Your task to perform on an android device: turn on translation in the chrome app Image 0: 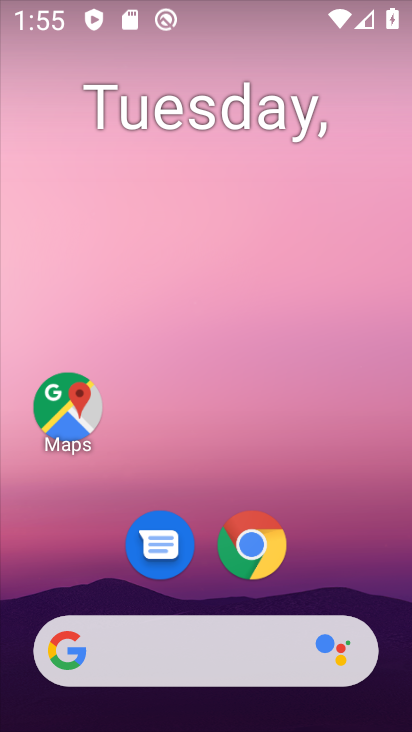
Step 0: drag from (318, 476) to (242, 9)
Your task to perform on an android device: turn on translation in the chrome app Image 1: 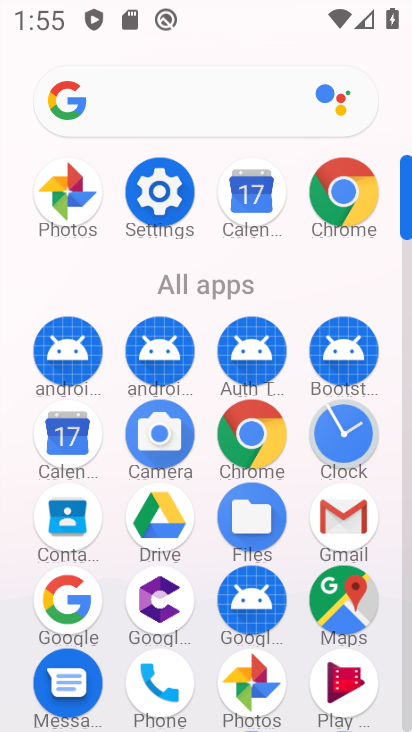
Step 1: drag from (12, 542) to (13, 198)
Your task to perform on an android device: turn on translation in the chrome app Image 2: 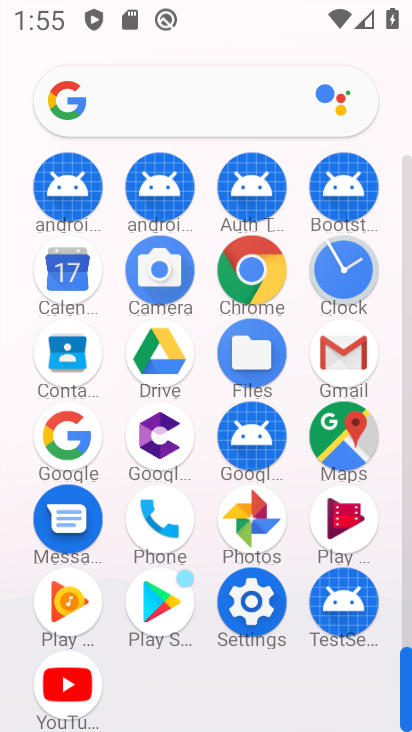
Step 2: click (250, 273)
Your task to perform on an android device: turn on translation in the chrome app Image 3: 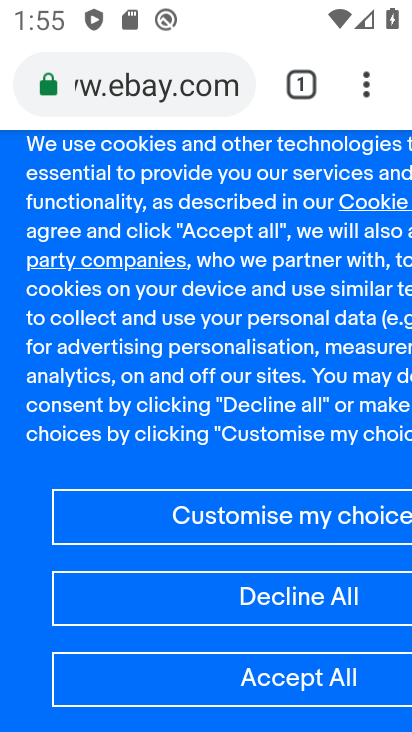
Step 3: drag from (370, 90) to (132, 599)
Your task to perform on an android device: turn on translation in the chrome app Image 4: 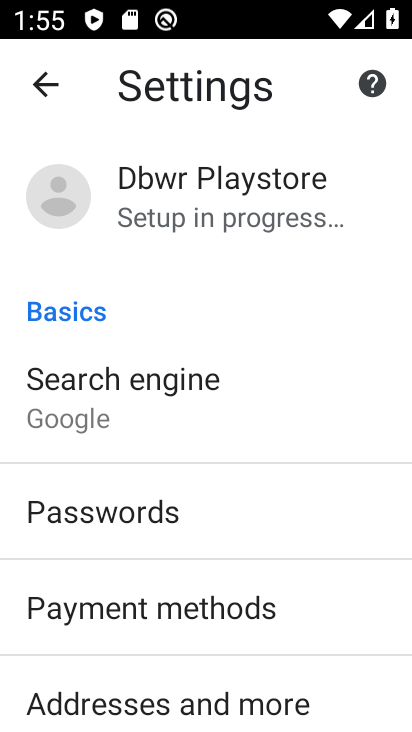
Step 4: drag from (203, 561) to (218, 243)
Your task to perform on an android device: turn on translation in the chrome app Image 5: 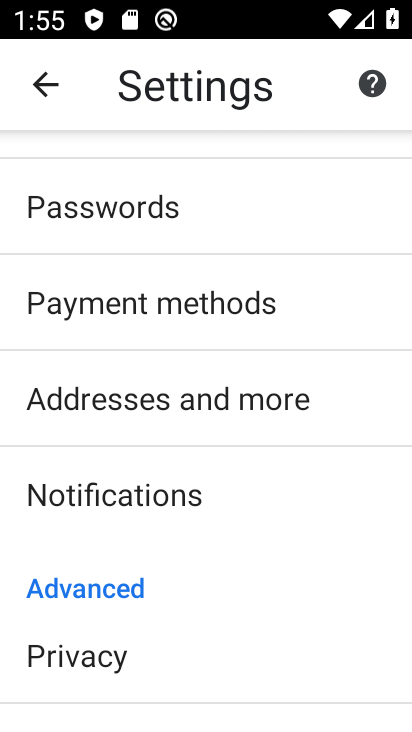
Step 5: drag from (213, 624) to (213, 266)
Your task to perform on an android device: turn on translation in the chrome app Image 6: 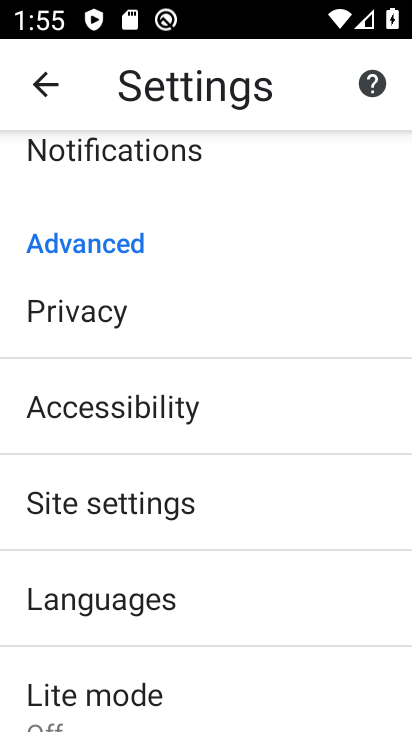
Step 6: click (130, 587)
Your task to perform on an android device: turn on translation in the chrome app Image 7: 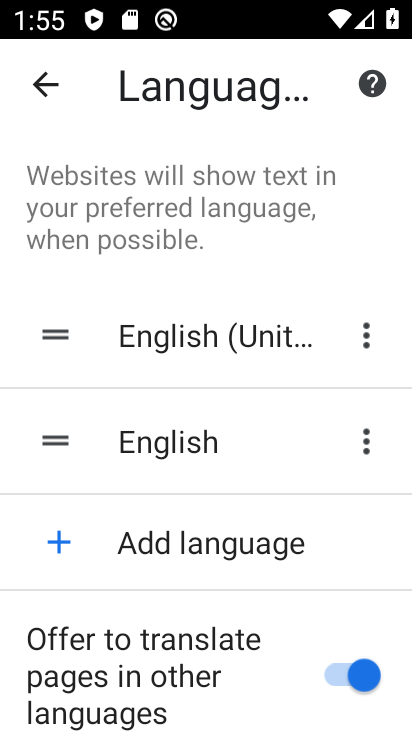
Step 7: task complete